Your task to perform on an android device: Open the stopwatch Image 0: 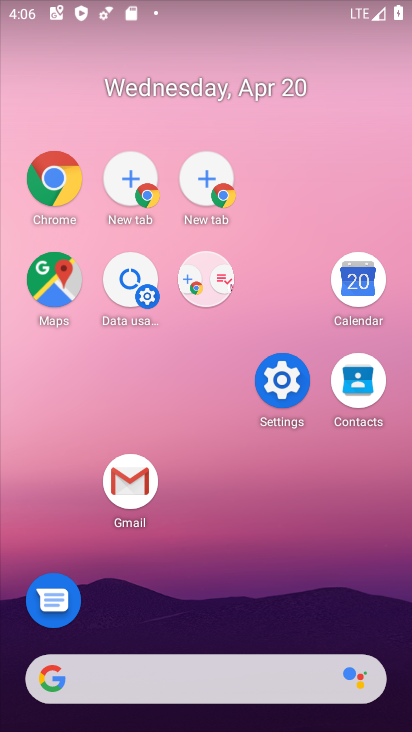
Step 0: drag from (280, 651) to (264, 76)
Your task to perform on an android device: Open the stopwatch Image 1: 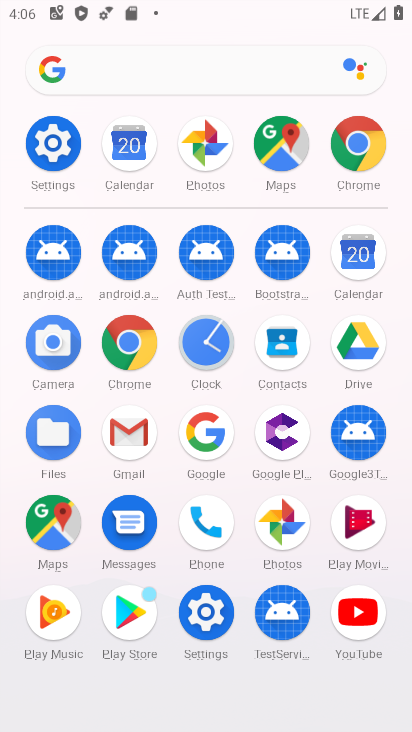
Step 1: click (201, 352)
Your task to perform on an android device: Open the stopwatch Image 2: 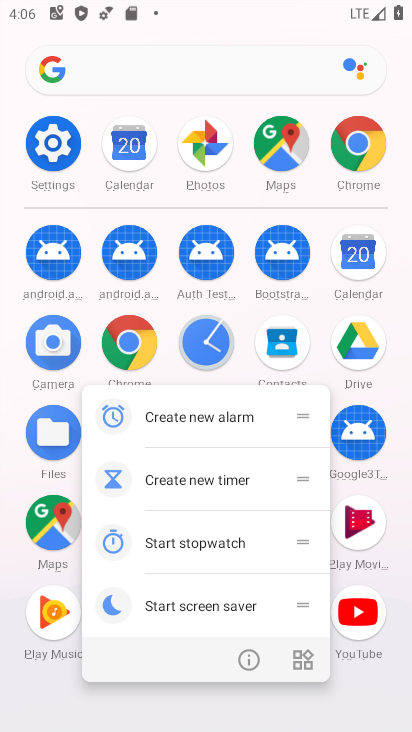
Step 2: click (202, 351)
Your task to perform on an android device: Open the stopwatch Image 3: 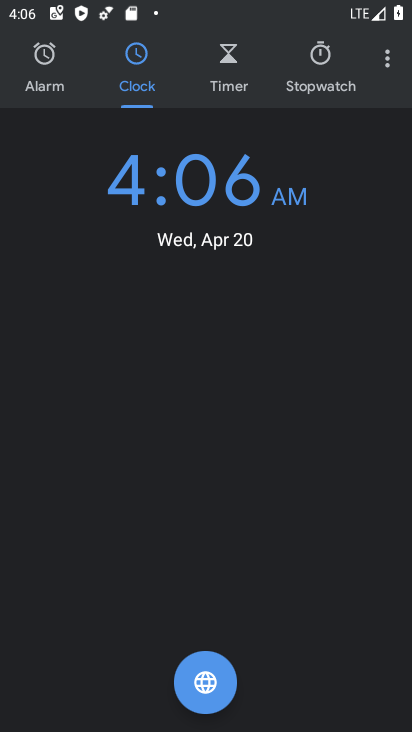
Step 3: click (319, 74)
Your task to perform on an android device: Open the stopwatch Image 4: 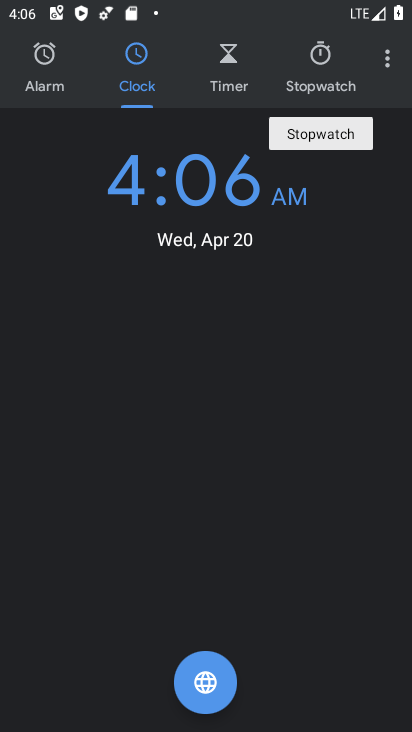
Step 4: click (319, 74)
Your task to perform on an android device: Open the stopwatch Image 5: 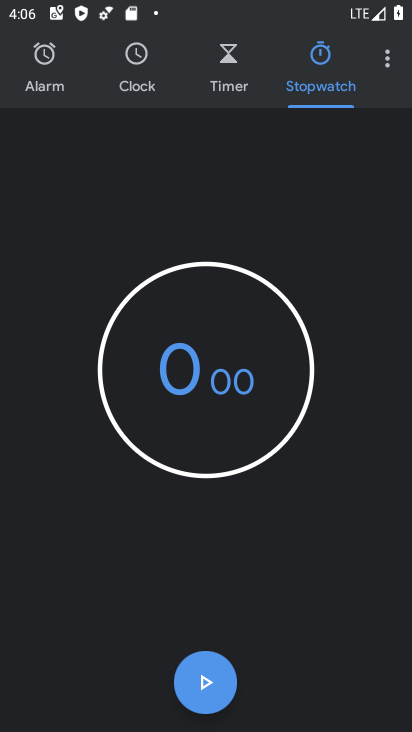
Step 5: click (211, 685)
Your task to perform on an android device: Open the stopwatch Image 6: 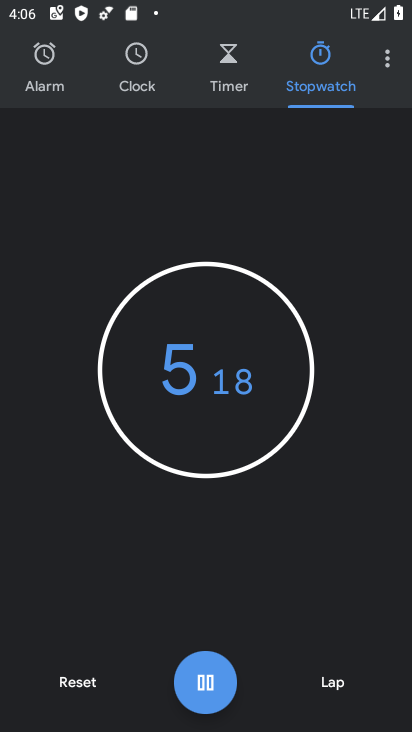
Step 6: click (211, 679)
Your task to perform on an android device: Open the stopwatch Image 7: 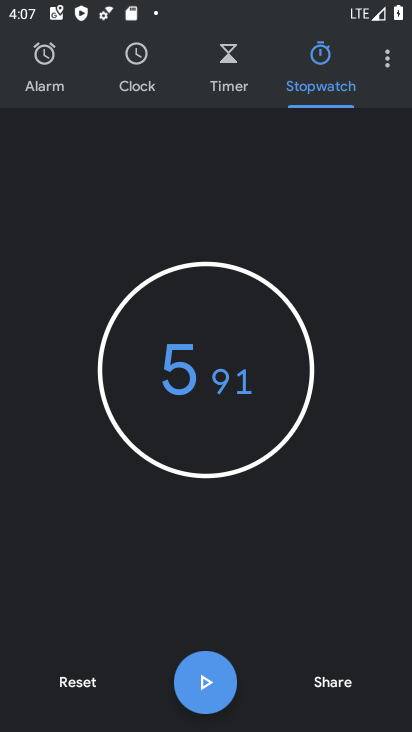
Step 7: click (197, 678)
Your task to perform on an android device: Open the stopwatch Image 8: 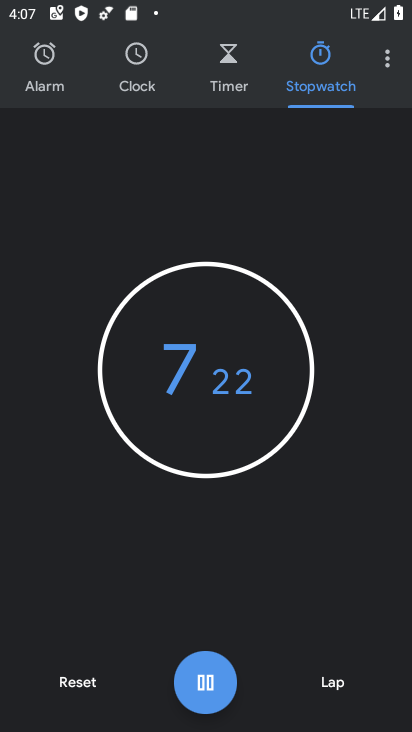
Step 8: click (197, 678)
Your task to perform on an android device: Open the stopwatch Image 9: 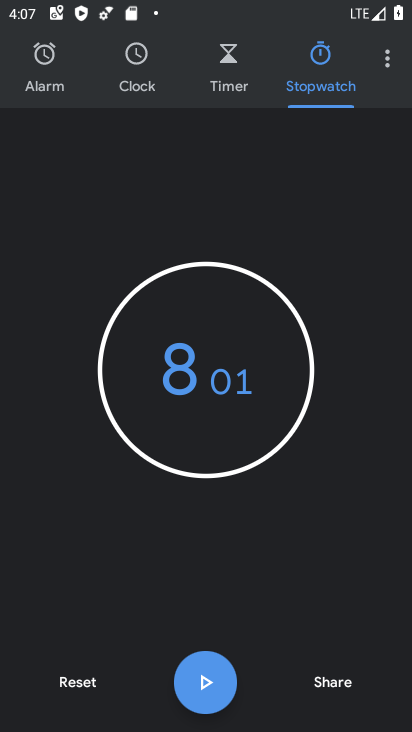
Step 9: task complete